Your task to perform on an android device: turn on sleep mode Image 0: 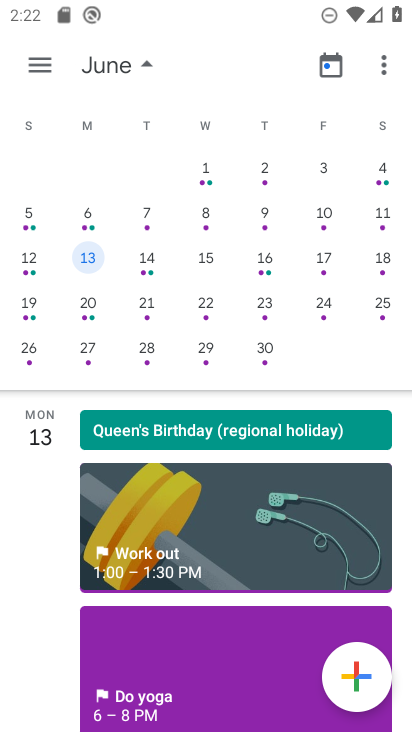
Step 0: press home button
Your task to perform on an android device: turn on sleep mode Image 1: 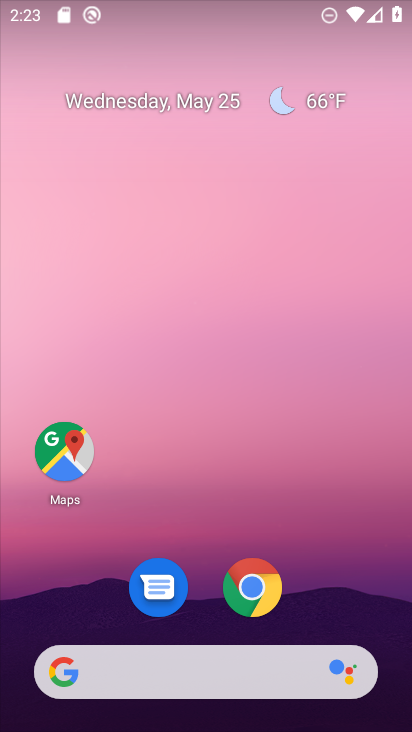
Step 1: drag from (378, 613) to (371, 316)
Your task to perform on an android device: turn on sleep mode Image 2: 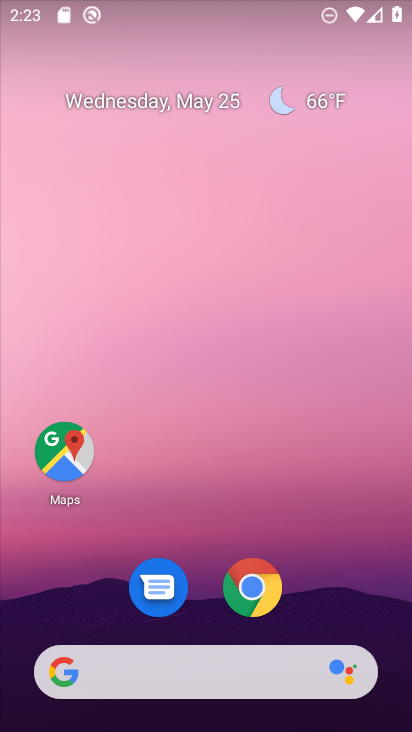
Step 2: drag from (363, 579) to (350, 186)
Your task to perform on an android device: turn on sleep mode Image 3: 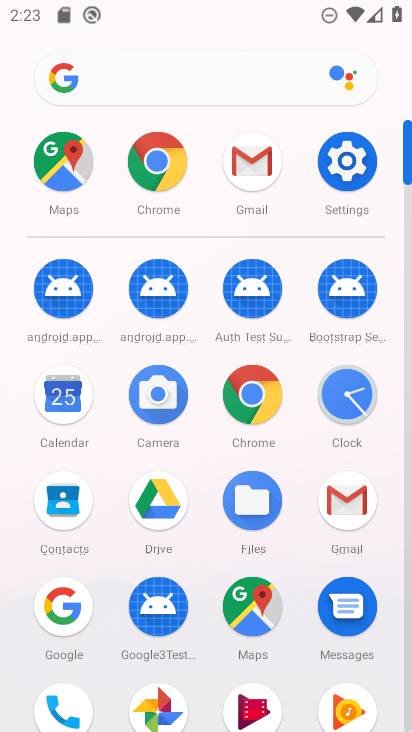
Step 3: click (344, 176)
Your task to perform on an android device: turn on sleep mode Image 4: 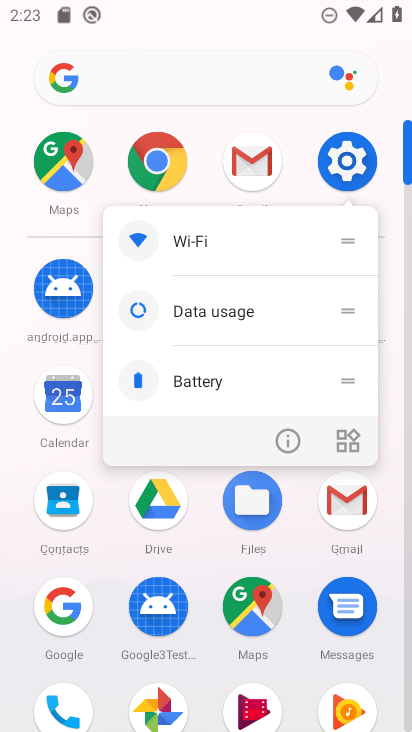
Step 4: click (352, 159)
Your task to perform on an android device: turn on sleep mode Image 5: 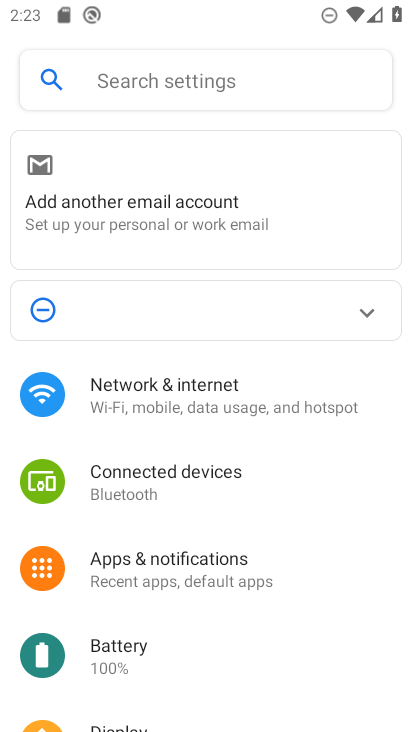
Step 5: drag from (332, 602) to (333, 463)
Your task to perform on an android device: turn on sleep mode Image 6: 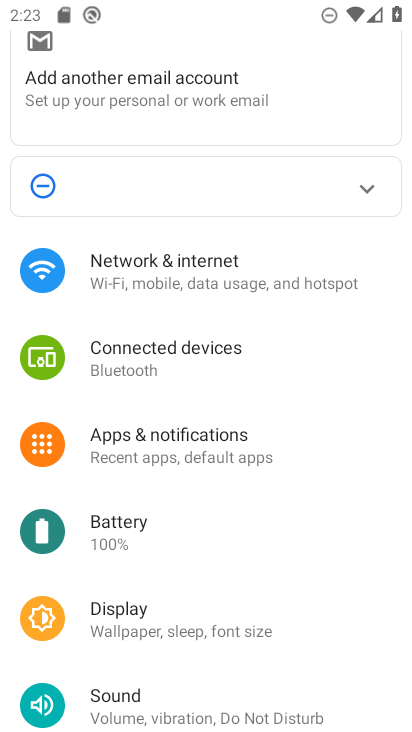
Step 6: drag from (340, 579) to (349, 446)
Your task to perform on an android device: turn on sleep mode Image 7: 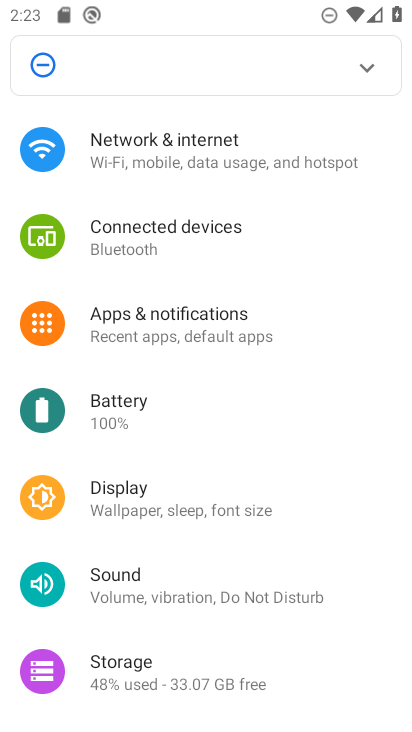
Step 7: drag from (344, 639) to (357, 508)
Your task to perform on an android device: turn on sleep mode Image 8: 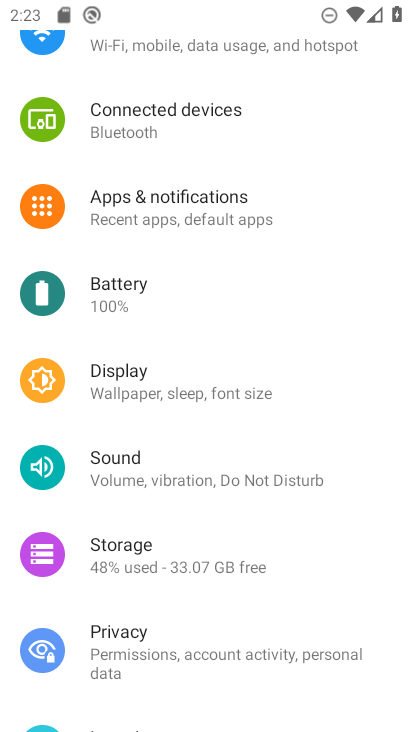
Step 8: drag from (357, 619) to (362, 510)
Your task to perform on an android device: turn on sleep mode Image 9: 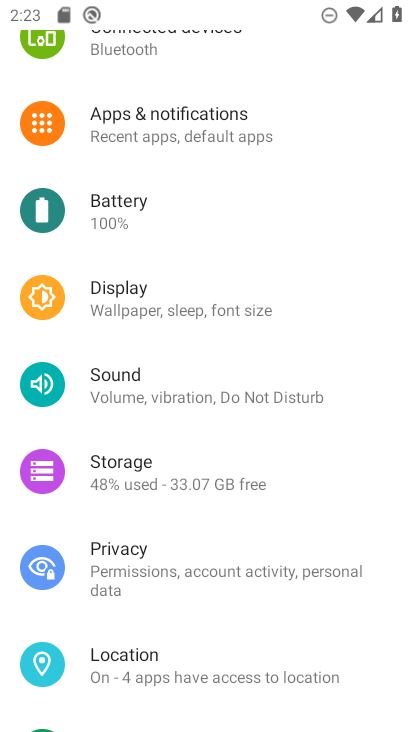
Step 9: drag from (356, 631) to (358, 479)
Your task to perform on an android device: turn on sleep mode Image 10: 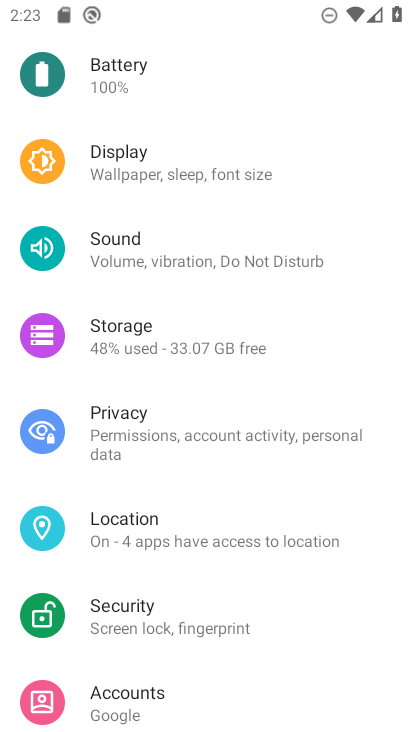
Step 10: drag from (348, 628) to (357, 459)
Your task to perform on an android device: turn on sleep mode Image 11: 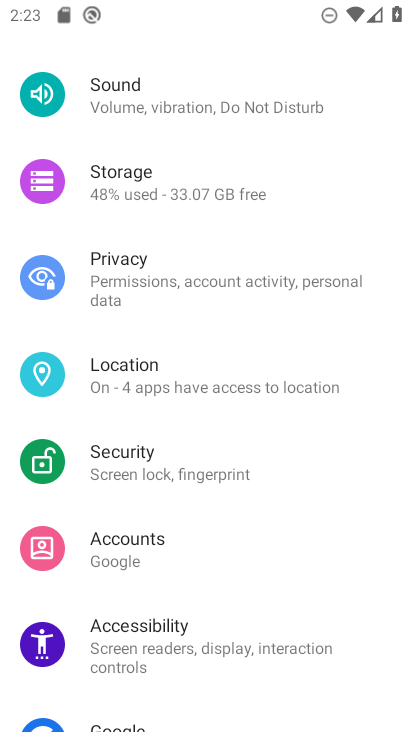
Step 11: drag from (347, 615) to (348, 494)
Your task to perform on an android device: turn on sleep mode Image 12: 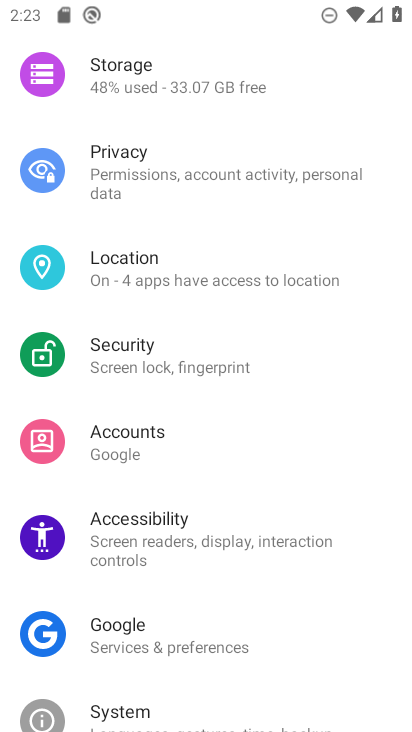
Step 12: drag from (350, 626) to (351, 488)
Your task to perform on an android device: turn on sleep mode Image 13: 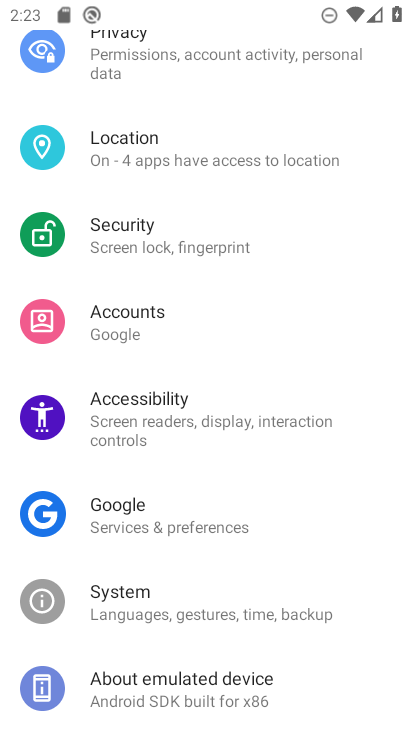
Step 13: drag from (354, 291) to (349, 499)
Your task to perform on an android device: turn on sleep mode Image 14: 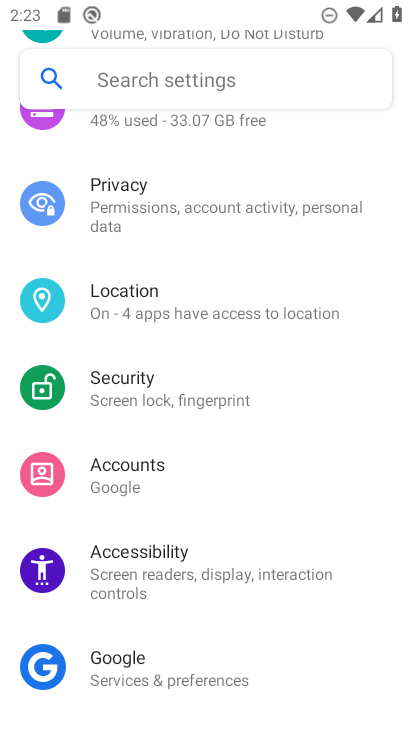
Step 14: drag from (331, 351) to (331, 466)
Your task to perform on an android device: turn on sleep mode Image 15: 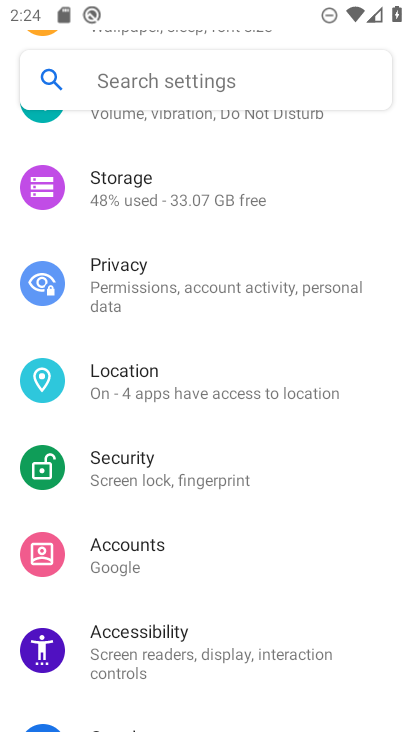
Step 15: drag from (335, 262) to (334, 403)
Your task to perform on an android device: turn on sleep mode Image 16: 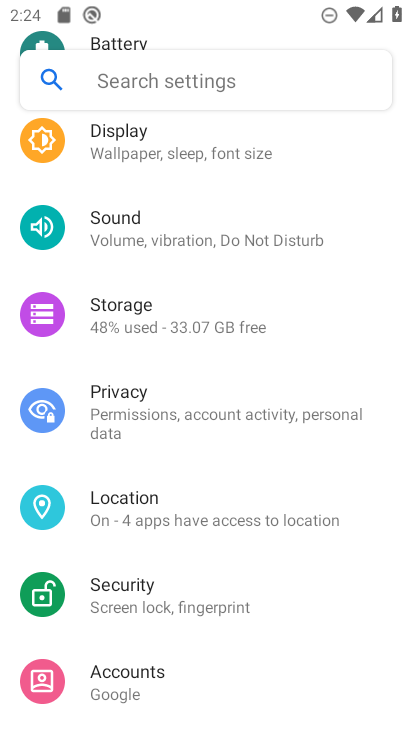
Step 16: drag from (337, 273) to (337, 415)
Your task to perform on an android device: turn on sleep mode Image 17: 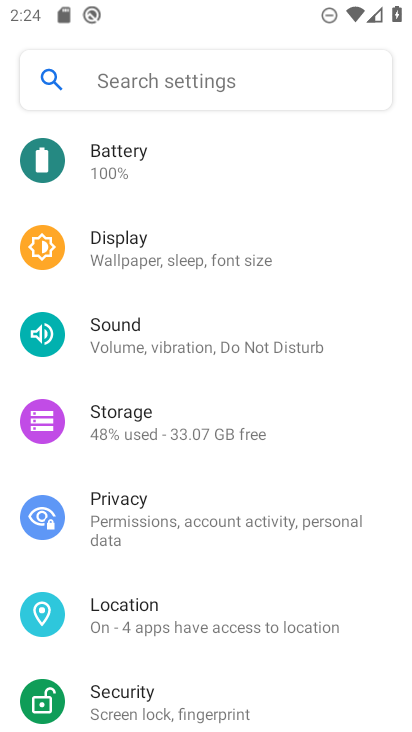
Step 17: drag from (330, 240) to (322, 403)
Your task to perform on an android device: turn on sleep mode Image 18: 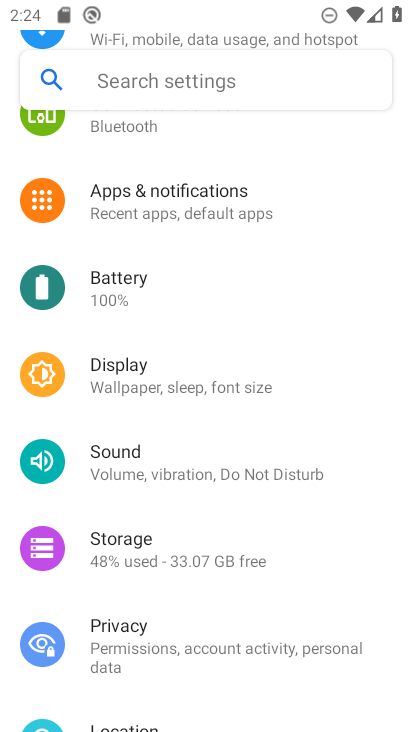
Step 18: click (237, 397)
Your task to perform on an android device: turn on sleep mode Image 19: 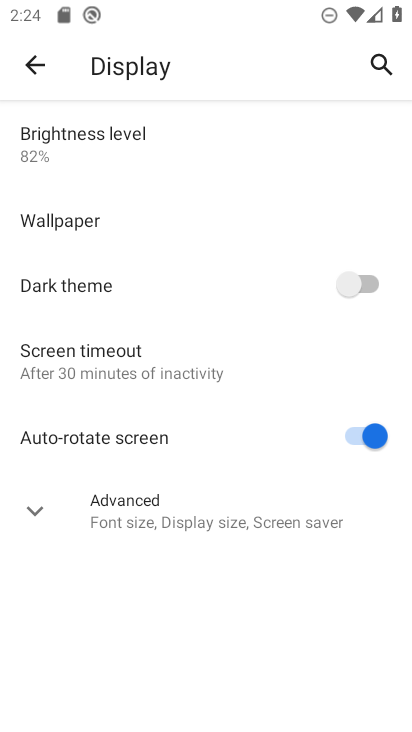
Step 19: click (248, 509)
Your task to perform on an android device: turn on sleep mode Image 20: 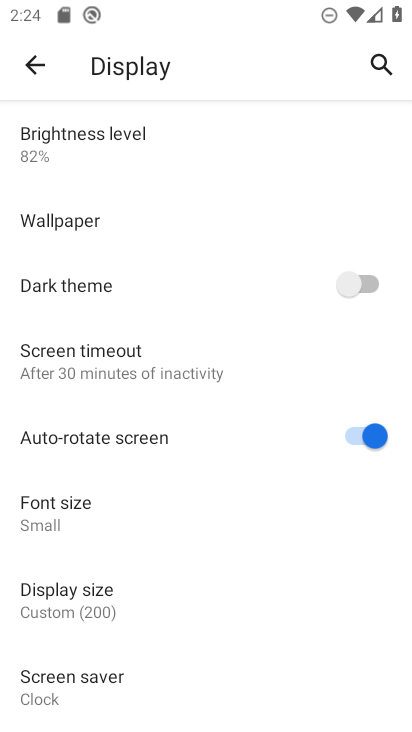
Step 20: task complete